Your task to perform on an android device: change the clock display to digital Image 0: 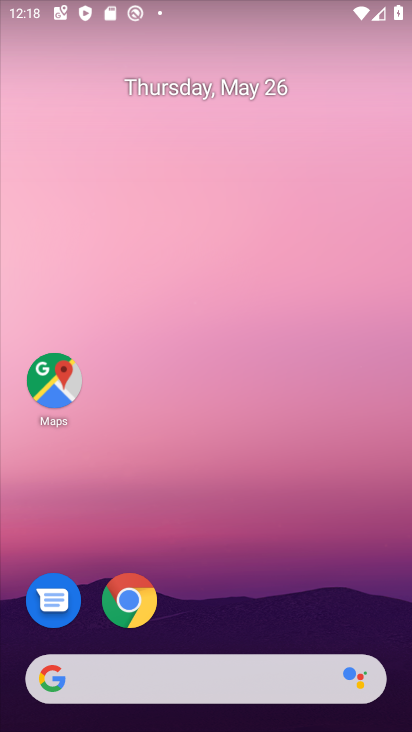
Step 0: drag from (280, 565) to (307, 166)
Your task to perform on an android device: change the clock display to digital Image 1: 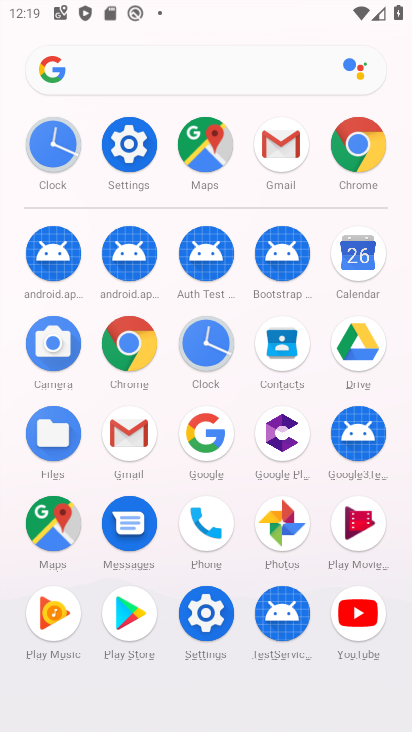
Step 1: click (214, 344)
Your task to perform on an android device: change the clock display to digital Image 2: 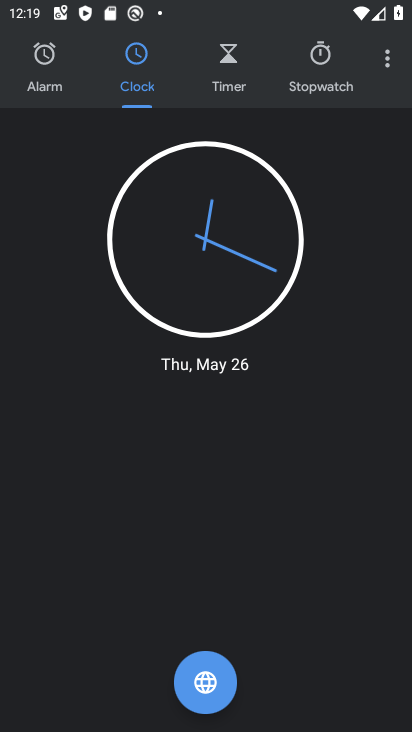
Step 2: click (384, 66)
Your task to perform on an android device: change the clock display to digital Image 3: 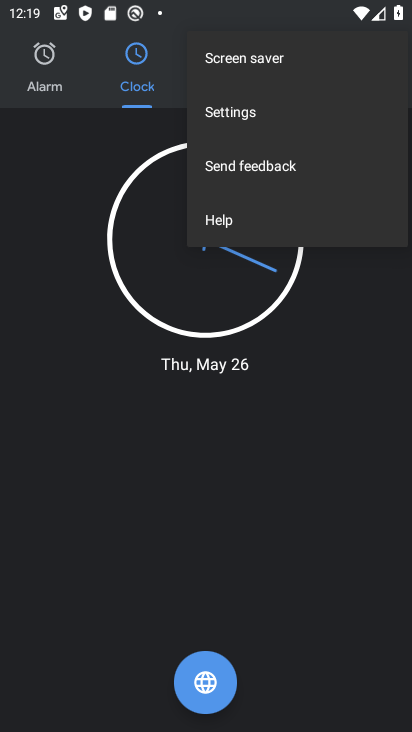
Step 3: click (267, 118)
Your task to perform on an android device: change the clock display to digital Image 4: 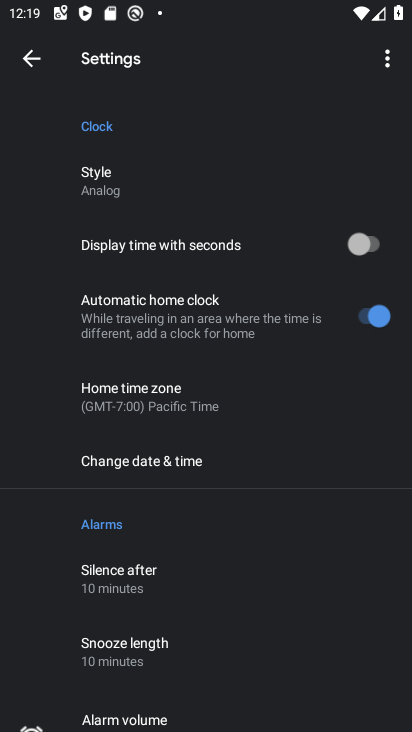
Step 4: click (112, 174)
Your task to perform on an android device: change the clock display to digital Image 5: 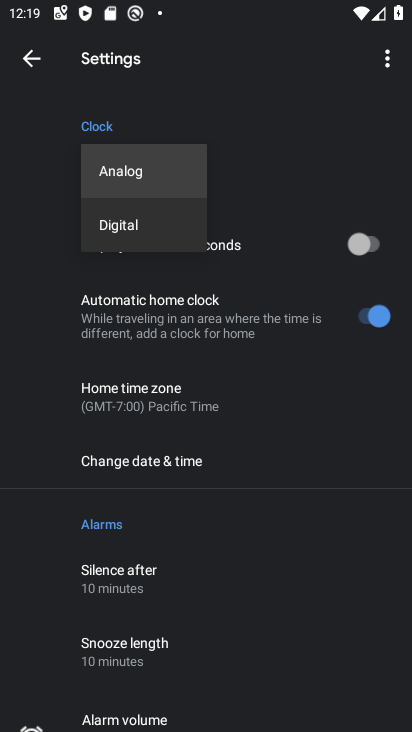
Step 5: click (137, 226)
Your task to perform on an android device: change the clock display to digital Image 6: 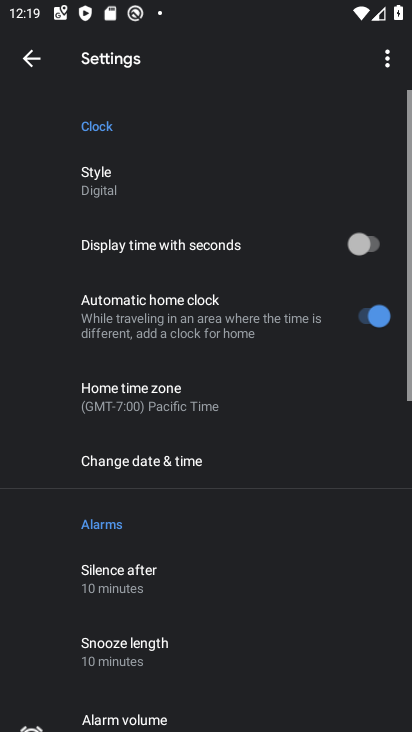
Step 6: task complete